Your task to perform on an android device: toggle data saver in the chrome app Image 0: 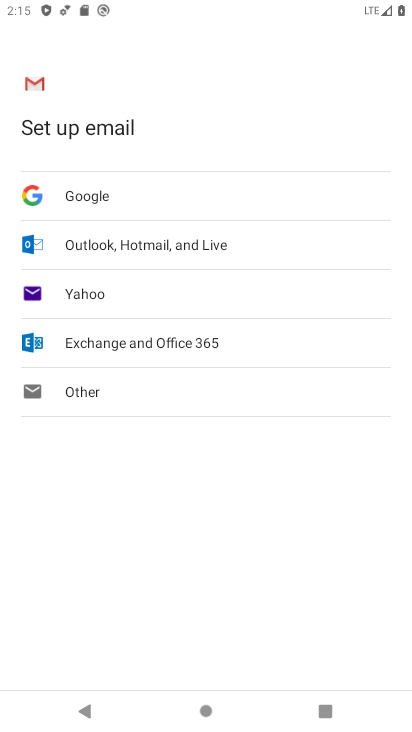
Step 0: press home button
Your task to perform on an android device: toggle data saver in the chrome app Image 1: 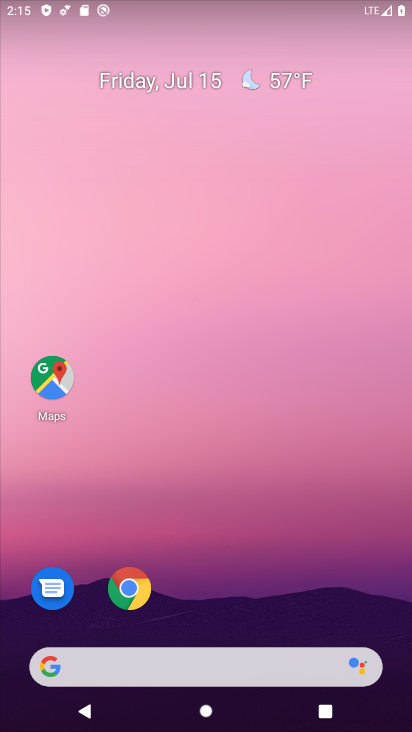
Step 1: click (141, 576)
Your task to perform on an android device: toggle data saver in the chrome app Image 2: 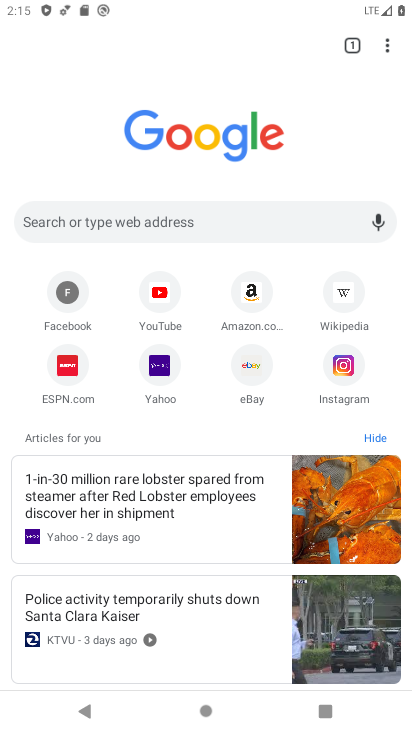
Step 2: click (394, 39)
Your task to perform on an android device: toggle data saver in the chrome app Image 3: 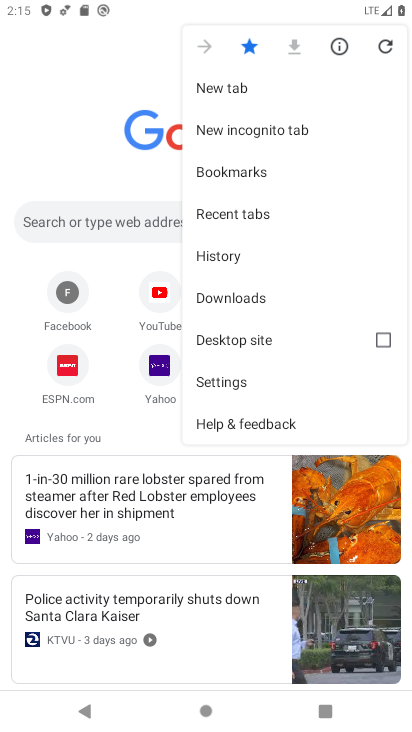
Step 3: click (239, 381)
Your task to perform on an android device: toggle data saver in the chrome app Image 4: 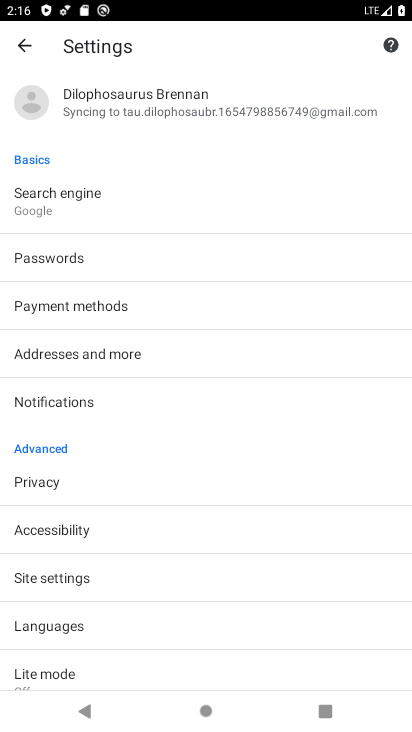
Step 4: click (167, 661)
Your task to perform on an android device: toggle data saver in the chrome app Image 5: 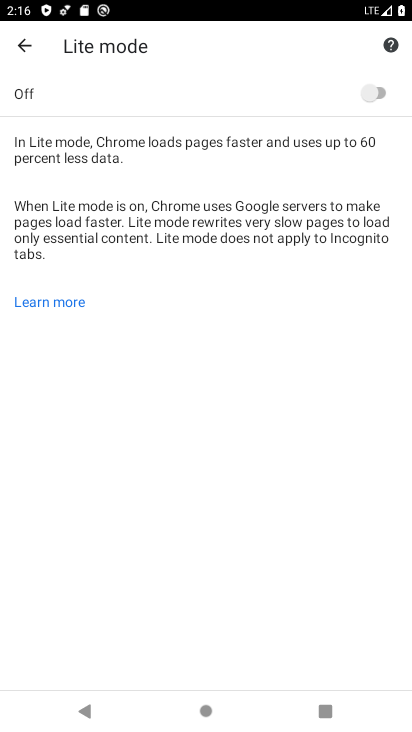
Step 5: click (373, 98)
Your task to perform on an android device: toggle data saver in the chrome app Image 6: 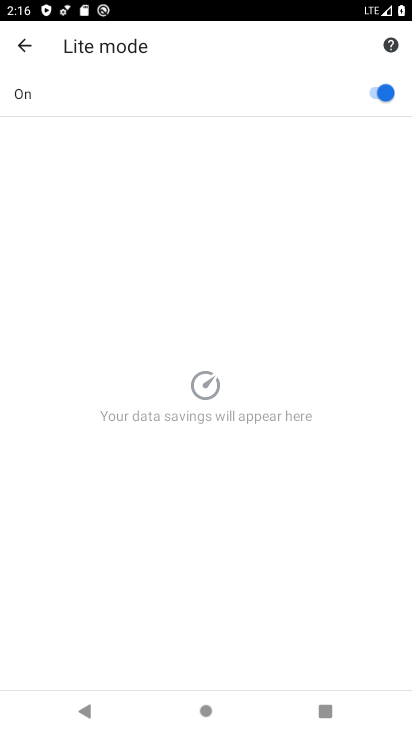
Step 6: task complete